Your task to perform on an android device: Open accessibility settings Image 0: 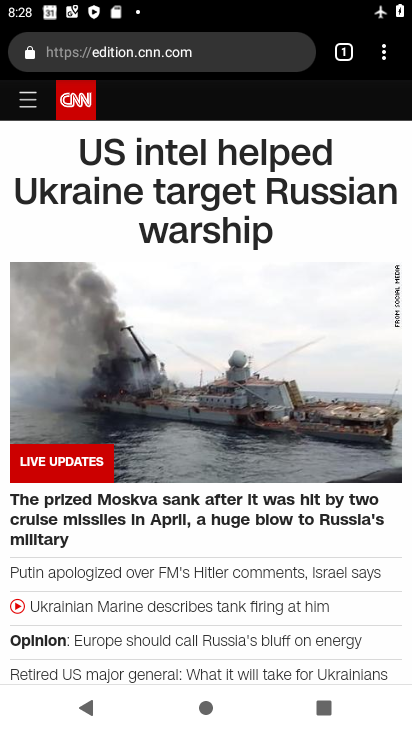
Step 0: press home button
Your task to perform on an android device: Open accessibility settings Image 1: 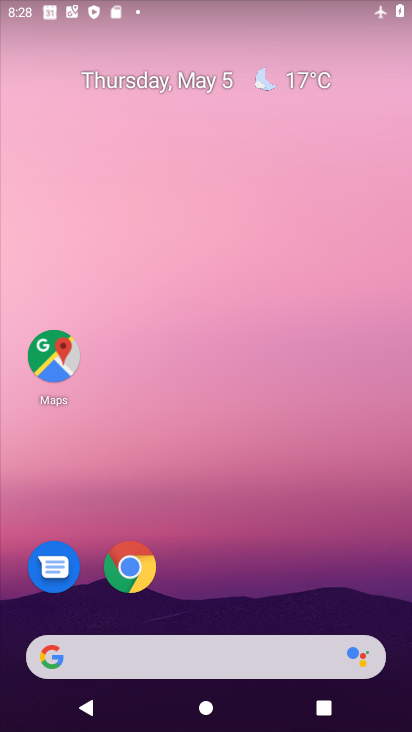
Step 1: drag from (225, 595) to (249, 128)
Your task to perform on an android device: Open accessibility settings Image 2: 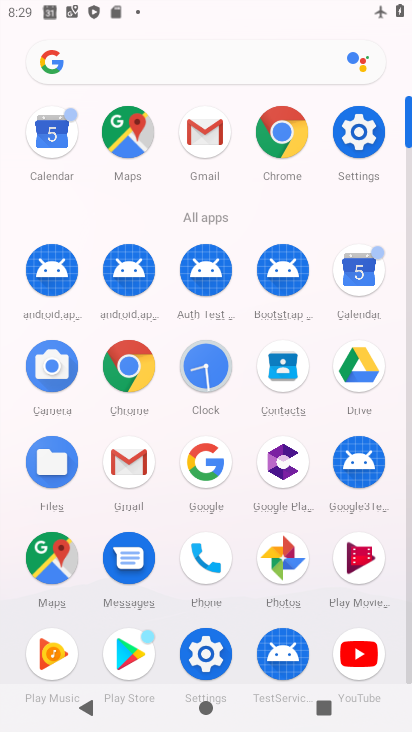
Step 2: click (360, 140)
Your task to perform on an android device: Open accessibility settings Image 3: 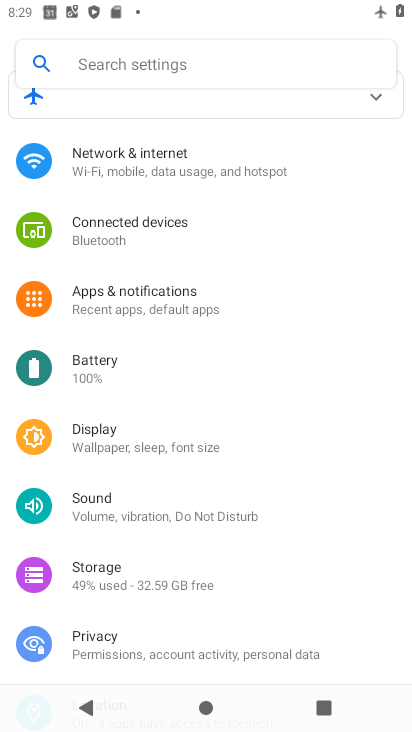
Step 3: drag from (251, 504) to (254, 123)
Your task to perform on an android device: Open accessibility settings Image 4: 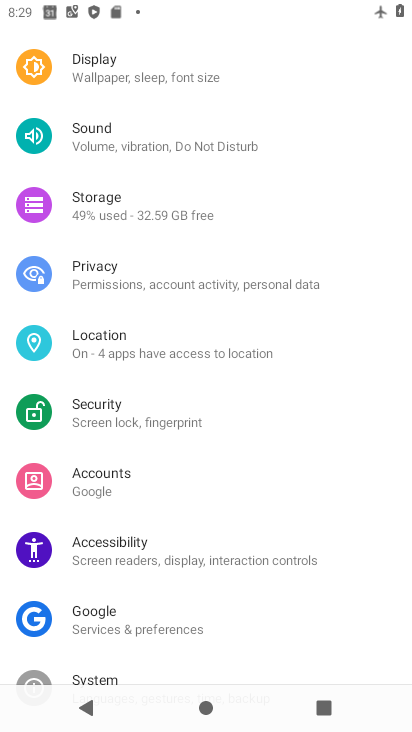
Step 4: click (200, 555)
Your task to perform on an android device: Open accessibility settings Image 5: 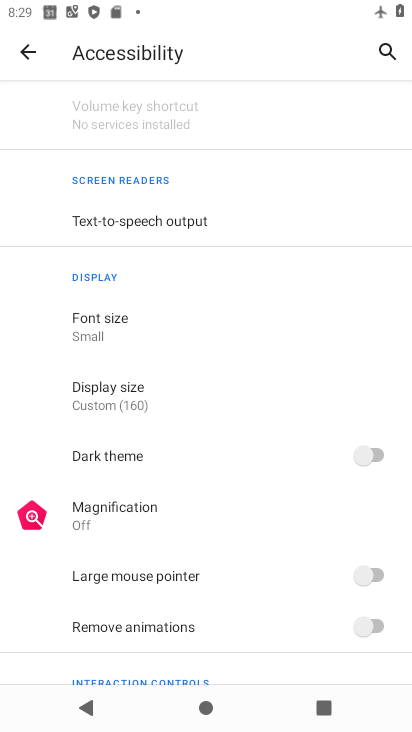
Step 5: task complete